Your task to perform on an android device: Go to Google Image 0: 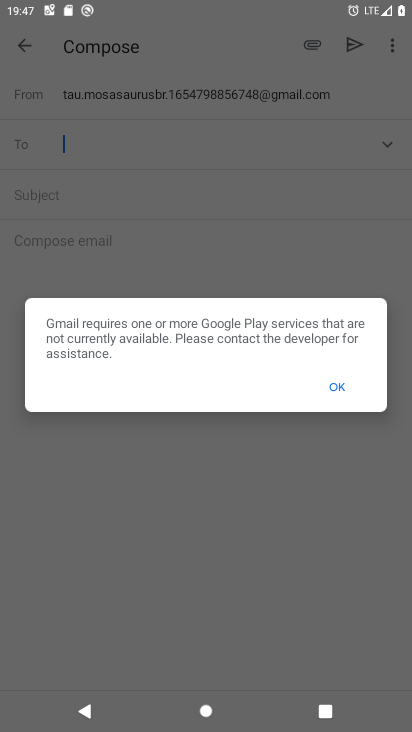
Step 0: press home button
Your task to perform on an android device: Go to Google Image 1: 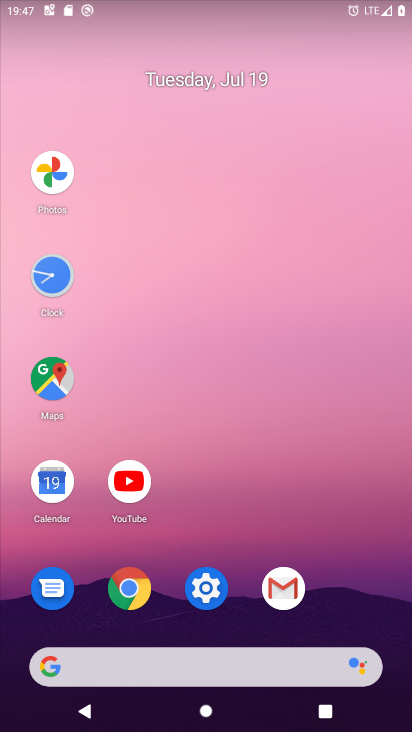
Step 1: click (47, 665)
Your task to perform on an android device: Go to Google Image 2: 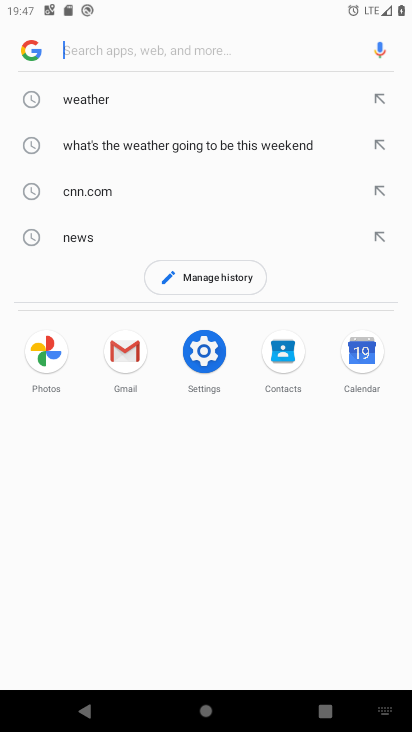
Step 2: click (35, 45)
Your task to perform on an android device: Go to Google Image 3: 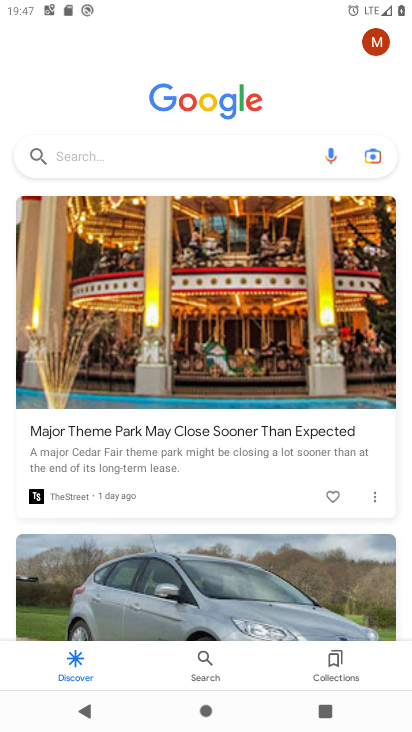
Step 3: task complete